Your task to perform on an android device: turn pop-ups off in chrome Image 0: 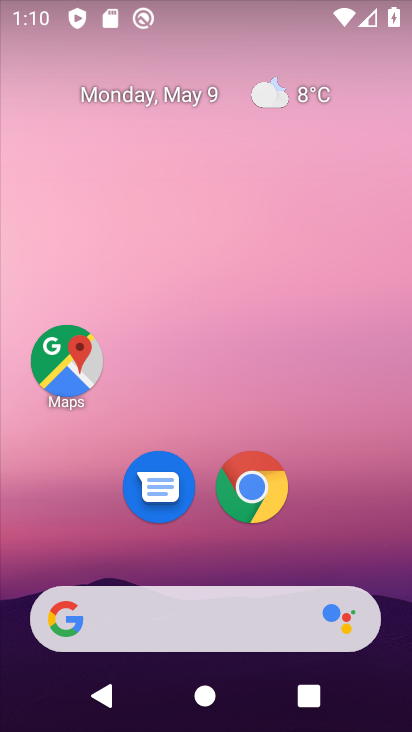
Step 0: click (262, 477)
Your task to perform on an android device: turn pop-ups off in chrome Image 1: 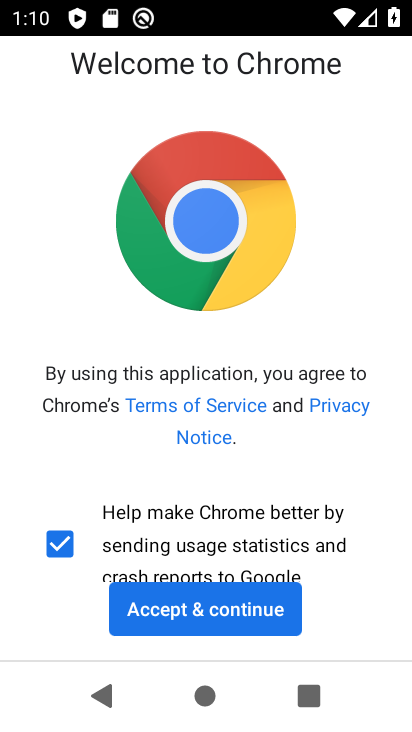
Step 1: click (253, 622)
Your task to perform on an android device: turn pop-ups off in chrome Image 2: 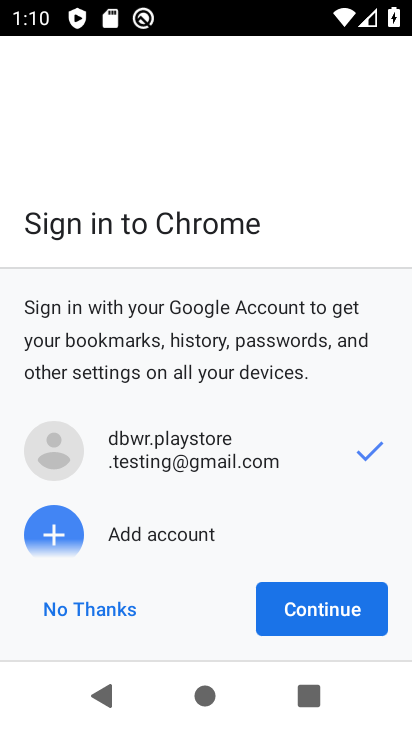
Step 2: click (329, 610)
Your task to perform on an android device: turn pop-ups off in chrome Image 3: 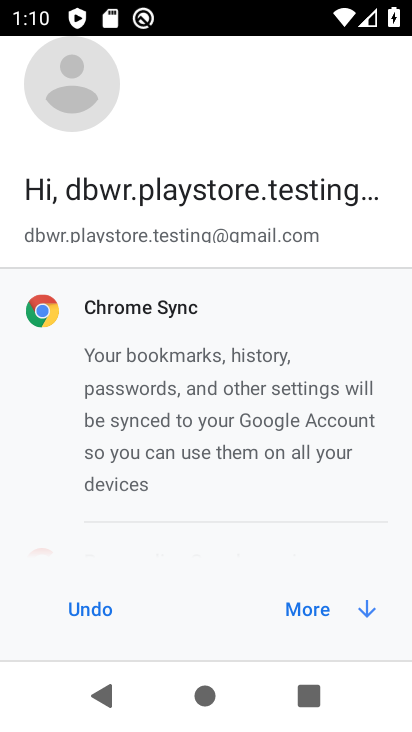
Step 3: click (313, 607)
Your task to perform on an android device: turn pop-ups off in chrome Image 4: 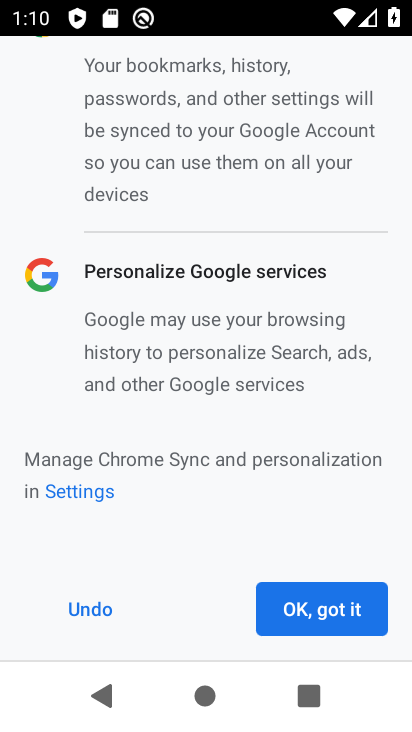
Step 4: click (307, 604)
Your task to perform on an android device: turn pop-ups off in chrome Image 5: 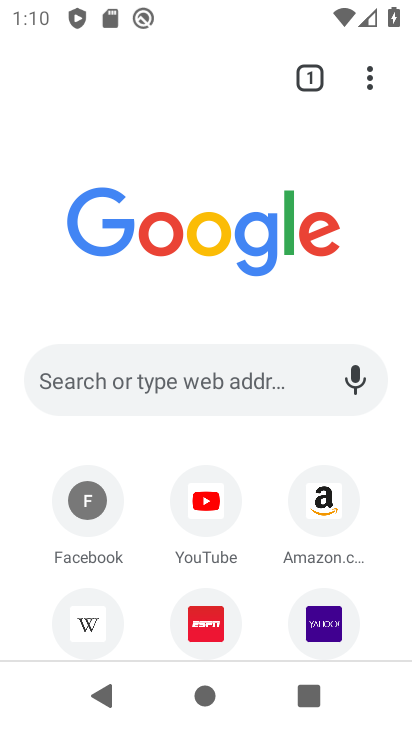
Step 5: click (380, 75)
Your task to perform on an android device: turn pop-ups off in chrome Image 6: 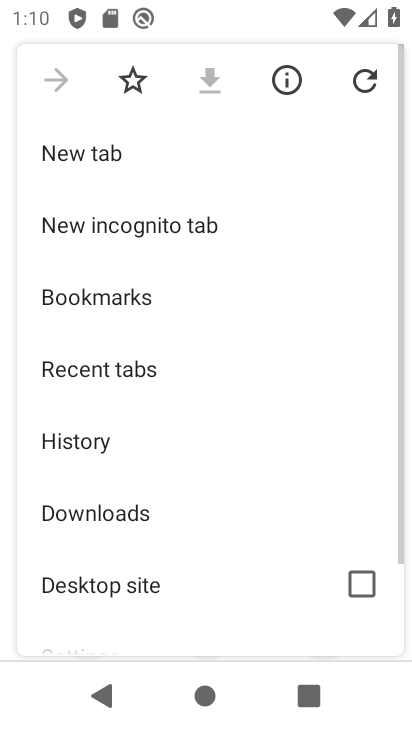
Step 6: drag from (204, 525) to (241, 16)
Your task to perform on an android device: turn pop-ups off in chrome Image 7: 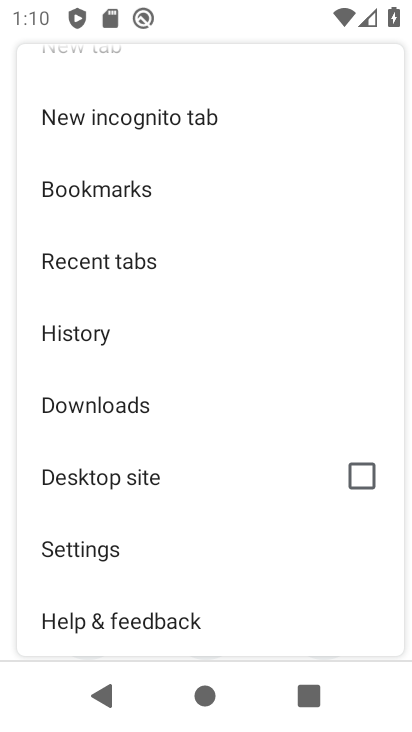
Step 7: click (114, 544)
Your task to perform on an android device: turn pop-ups off in chrome Image 8: 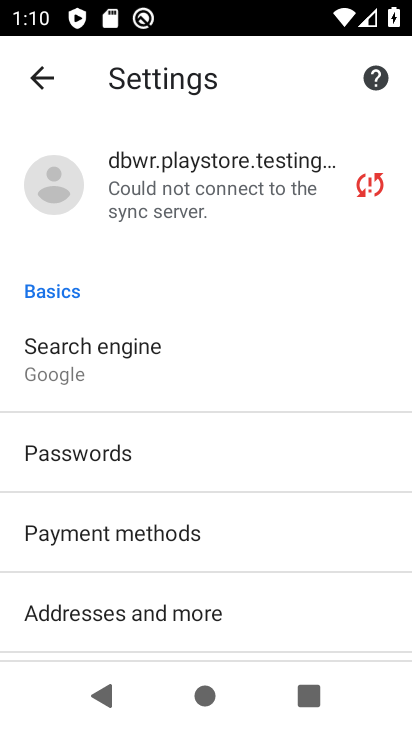
Step 8: drag from (194, 632) to (205, 120)
Your task to perform on an android device: turn pop-ups off in chrome Image 9: 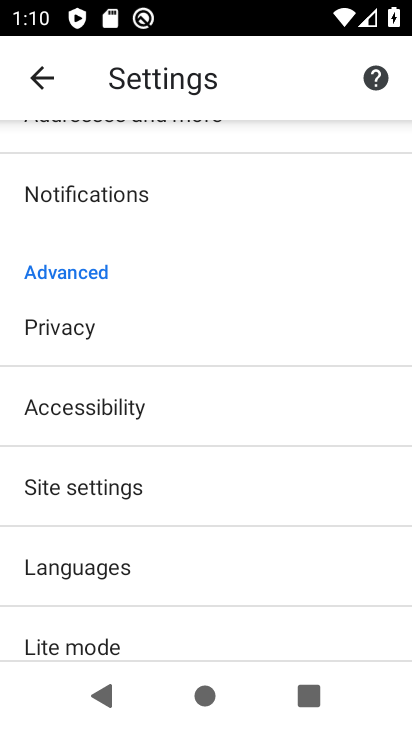
Step 9: click (148, 468)
Your task to perform on an android device: turn pop-ups off in chrome Image 10: 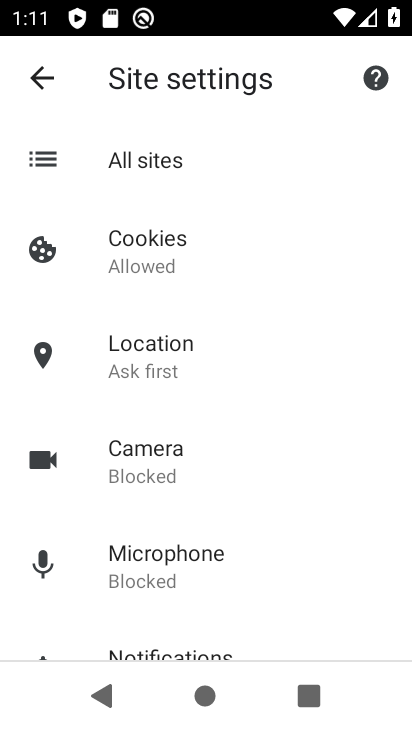
Step 10: drag from (150, 595) to (185, 169)
Your task to perform on an android device: turn pop-ups off in chrome Image 11: 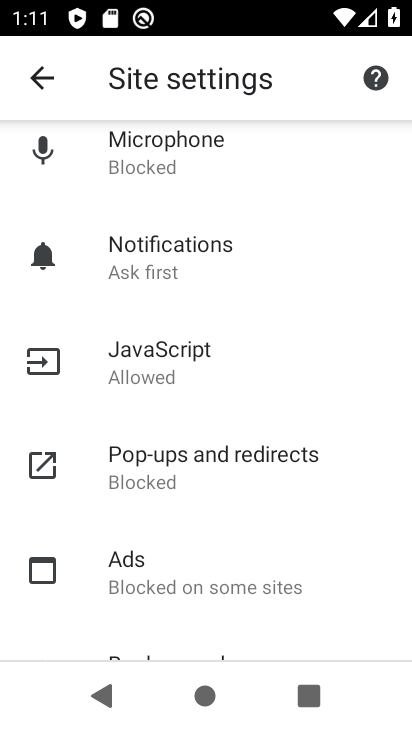
Step 11: click (183, 451)
Your task to perform on an android device: turn pop-ups off in chrome Image 12: 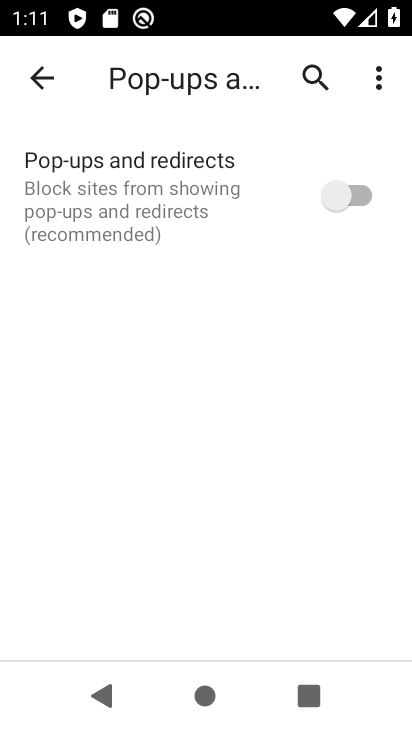
Step 12: task complete